Your task to perform on an android device: check battery use Image 0: 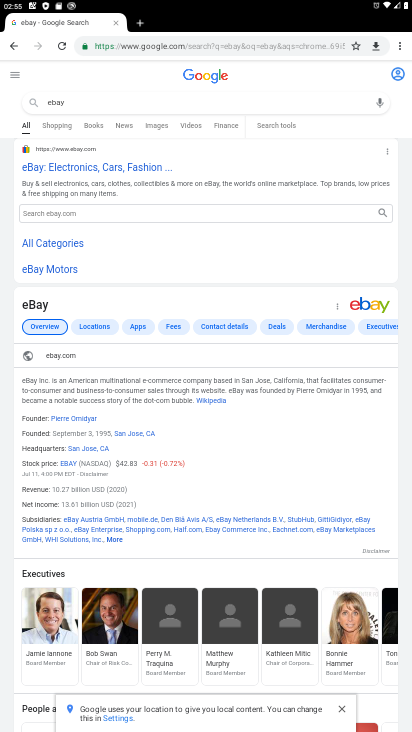
Step 0: press home button
Your task to perform on an android device: check battery use Image 1: 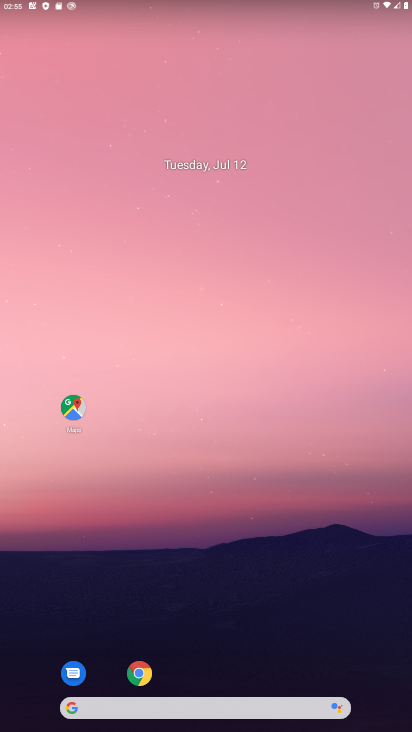
Step 1: drag from (237, 607) to (219, 262)
Your task to perform on an android device: check battery use Image 2: 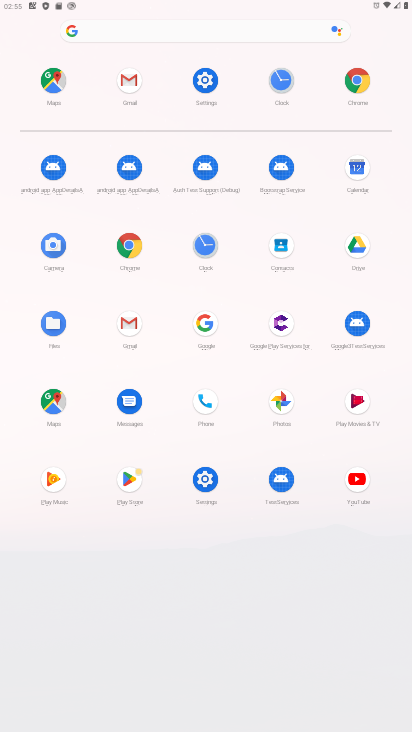
Step 2: click (202, 78)
Your task to perform on an android device: check battery use Image 3: 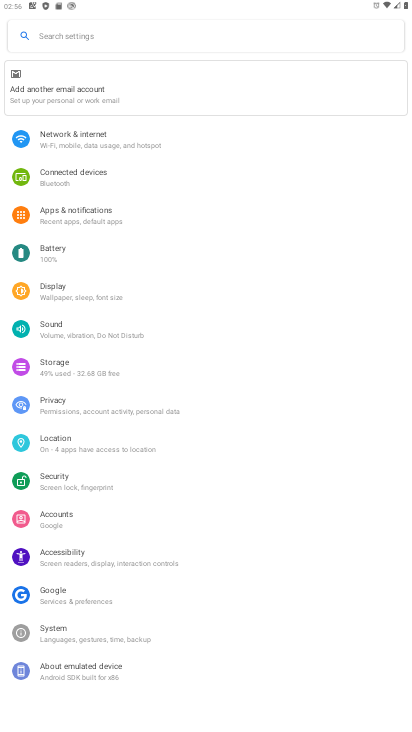
Step 3: click (113, 258)
Your task to perform on an android device: check battery use Image 4: 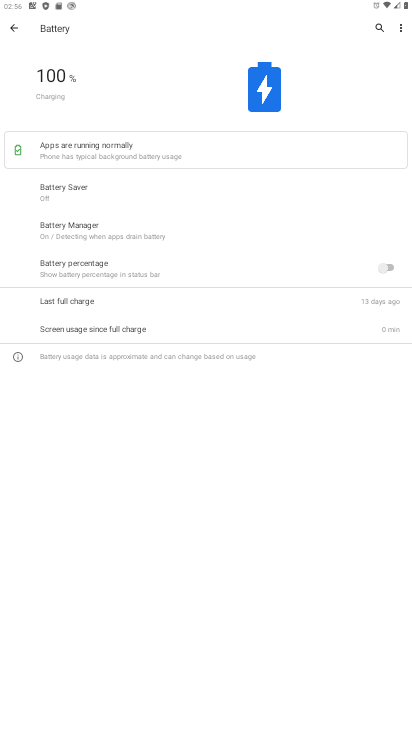
Step 4: click (399, 24)
Your task to perform on an android device: check battery use Image 5: 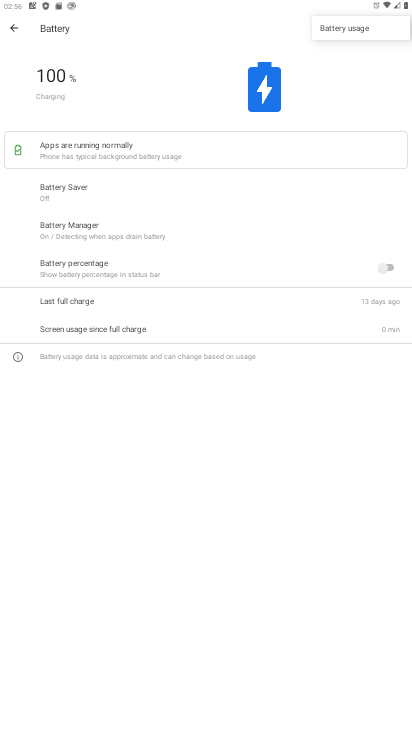
Step 5: click (376, 21)
Your task to perform on an android device: check battery use Image 6: 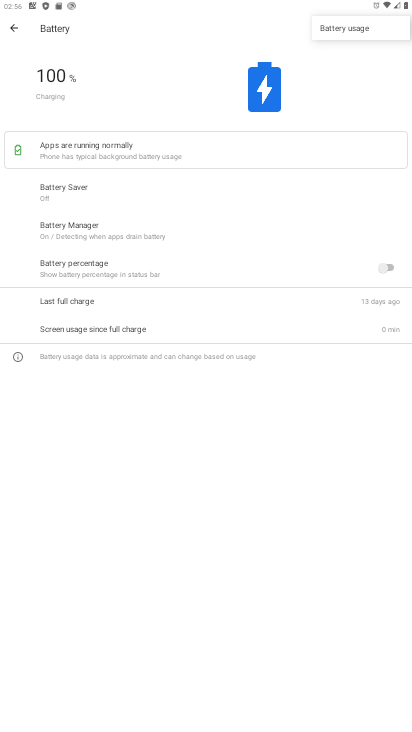
Step 6: click (380, 31)
Your task to perform on an android device: check battery use Image 7: 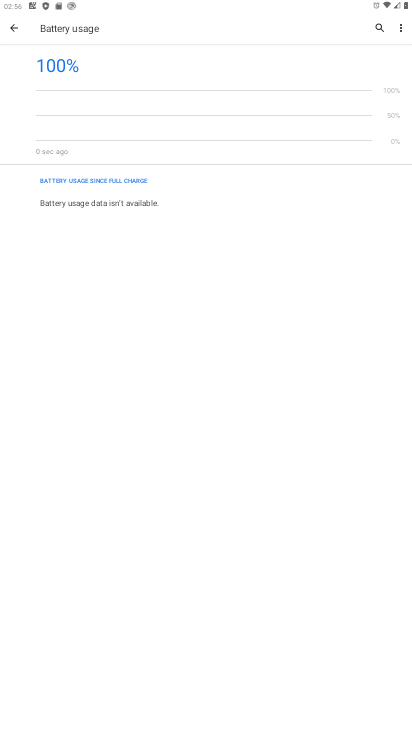
Step 7: task complete